Your task to perform on an android device: turn notification dots off Image 0: 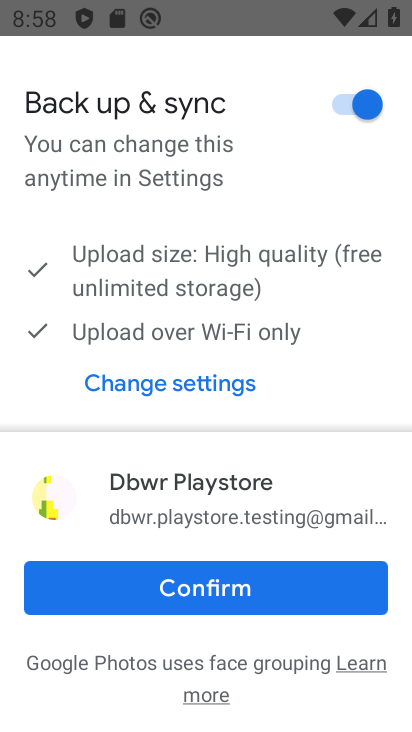
Step 0: press home button
Your task to perform on an android device: turn notification dots off Image 1: 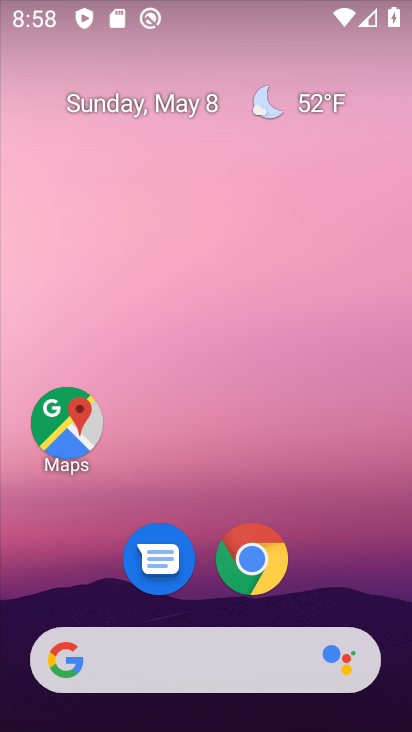
Step 1: drag from (347, 537) to (324, 28)
Your task to perform on an android device: turn notification dots off Image 2: 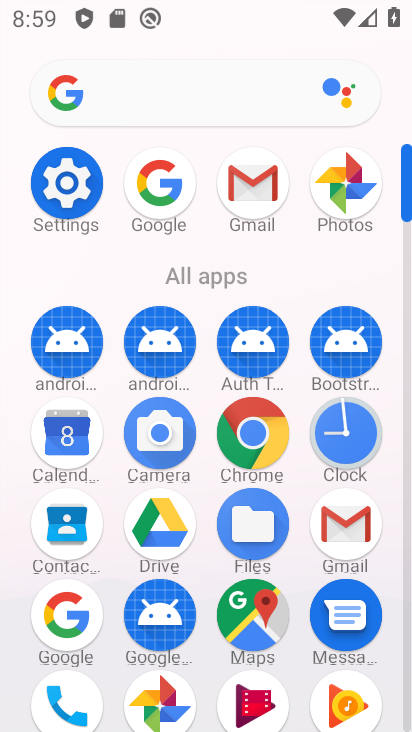
Step 2: click (65, 209)
Your task to perform on an android device: turn notification dots off Image 3: 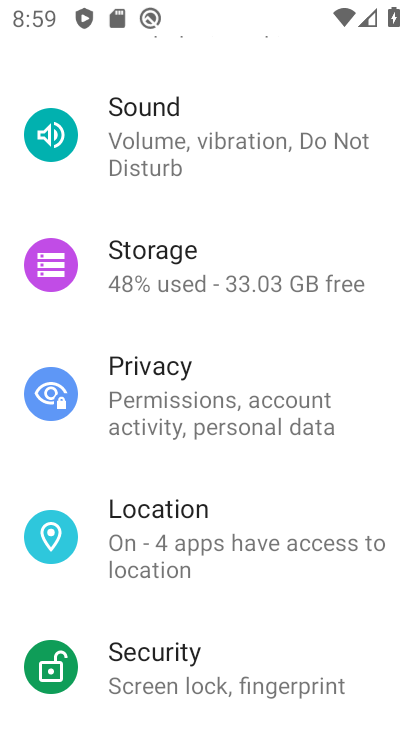
Step 3: drag from (213, 553) to (218, 31)
Your task to perform on an android device: turn notification dots off Image 4: 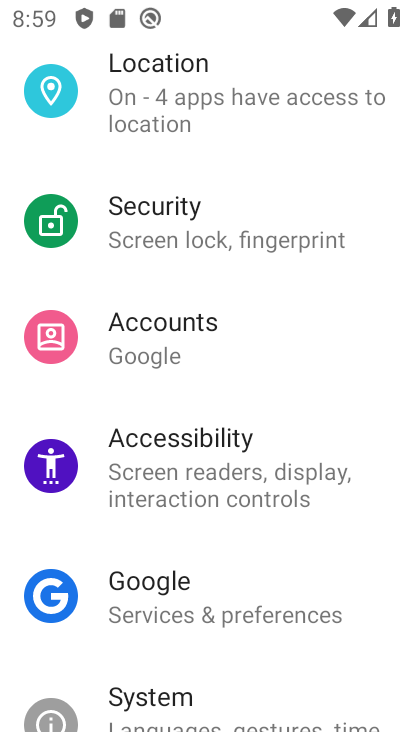
Step 4: drag from (244, 658) to (208, 72)
Your task to perform on an android device: turn notification dots off Image 5: 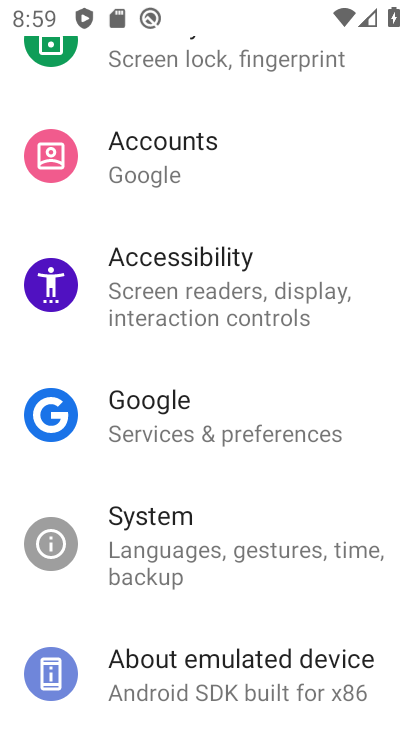
Step 5: drag from (254, 65) to (237, 647)
Your task to perform on an android device: turn notification dots off Image 6: 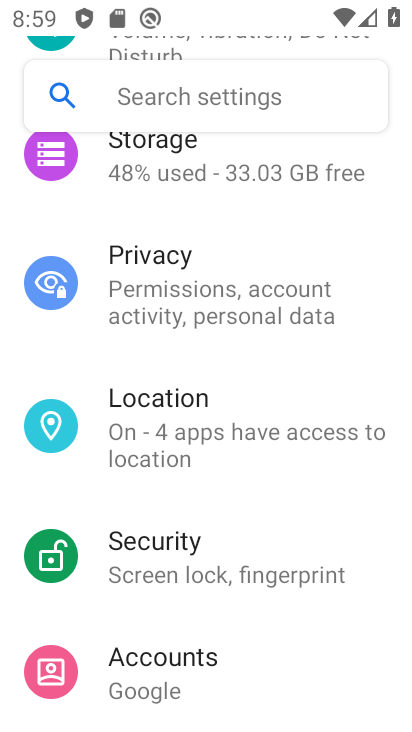
Step 6: drag from (174, 122) to (142, 624)
Your task to perform on an android device: turn notification dots off Image 7: 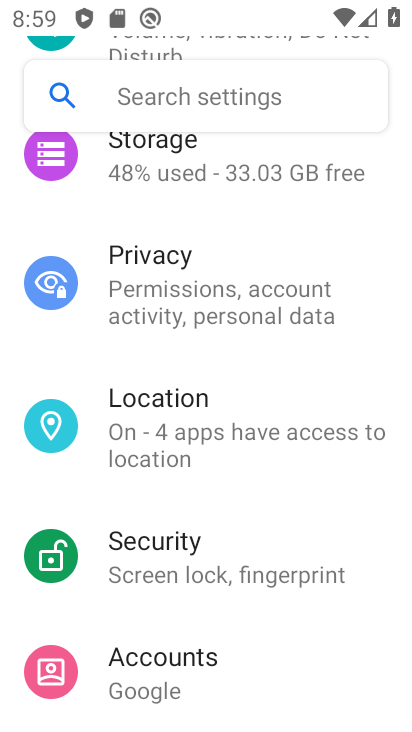
Step 7: drag from (155, 136) to (145, 516)
Your task to perform on an android device: turn notification dots off Image 8: 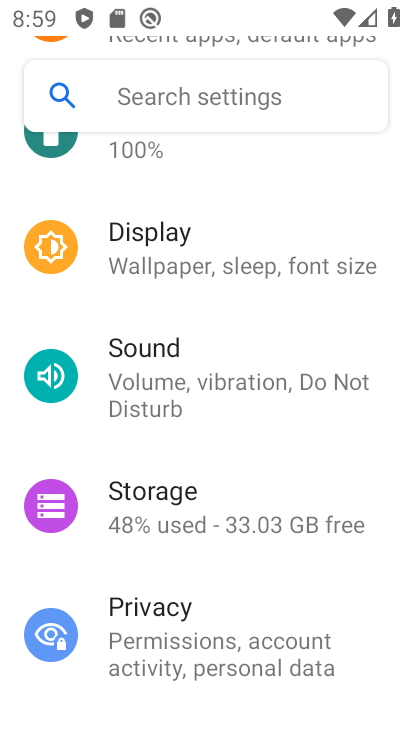
Step 8: drag from (132, 239) to (102, 588)
Your task to perform on an android device: turn notification dots off Image 9: 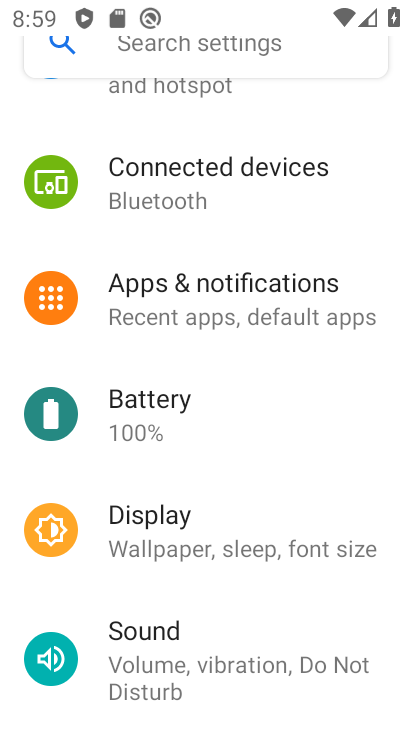
Step 9: click (149, 348)
Your task to perform on an android device: turn notification dots off Image 10: 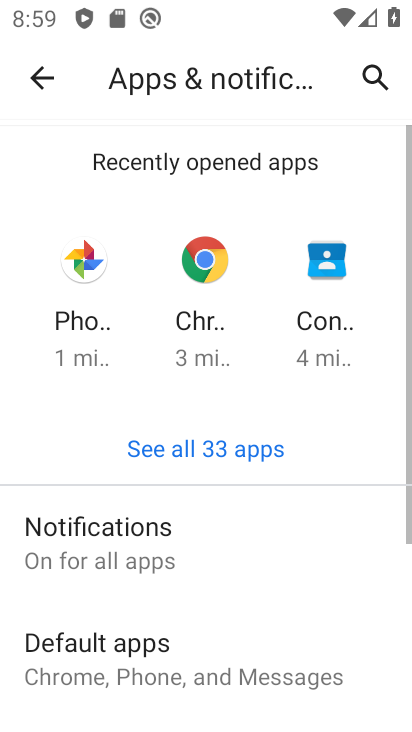
Step 10: drag from (187, 582) to (168, 432)
Your task to perform on an android device: turn notification dots off Image 11: 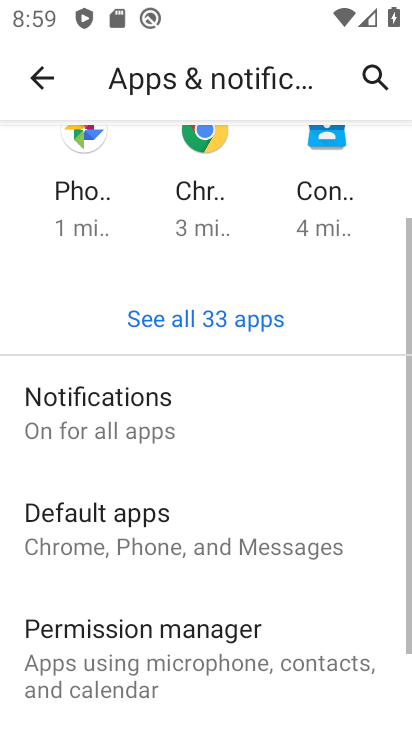
Step 11: click (169, 378)
Your task to perform on an android device: turn notification dots off Image 12: 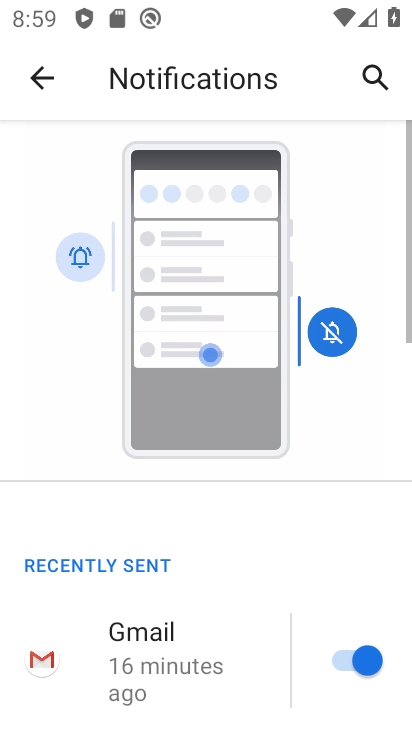
Step 12: drag from (308, 596) to (289, 102)
Your task to perform on an android device: turn notification dots off Image 13: 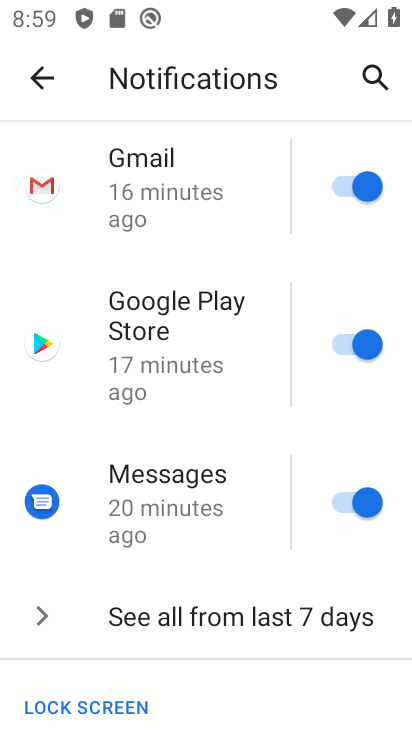
Step 13: drag from (265, 492) to (302, 122)
Your task to perform on an android device: turn notification dots off Image 14: 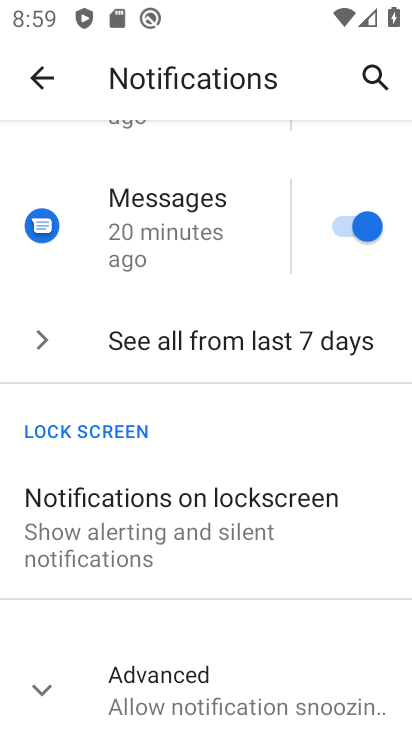
Step 14: drag from (220, 648) to (184, 197)
Your task to perform on an android device: turn notification dots off Image 15: 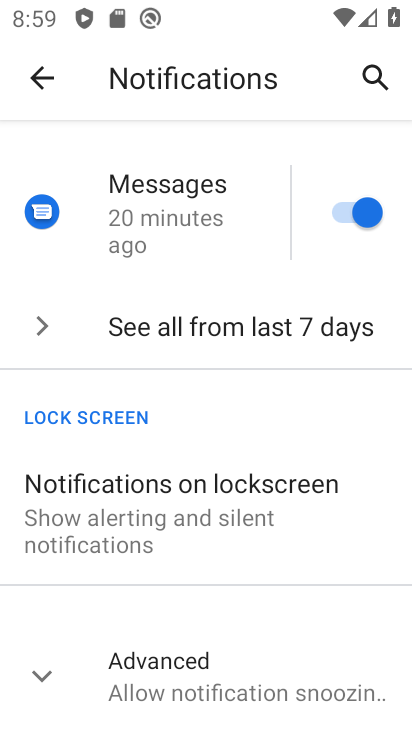
Step 15: click (206, 697)
Your task to perform on an android device: turn notification dots off Image 16: 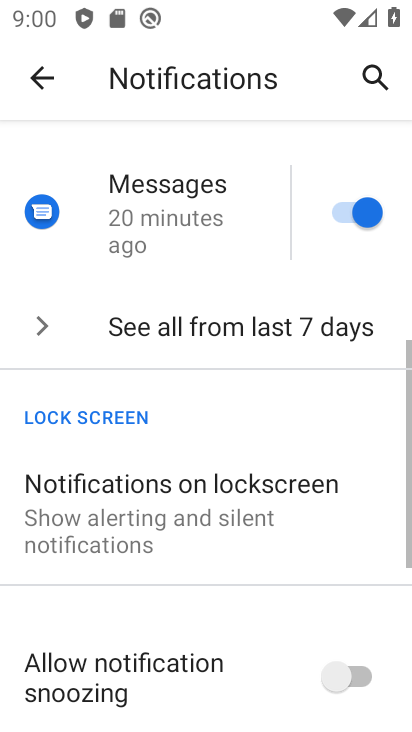
Step 16: drag from (207, 695) to (197, 444)
Your task to perform on an android device: turn notification dots off Image 17: 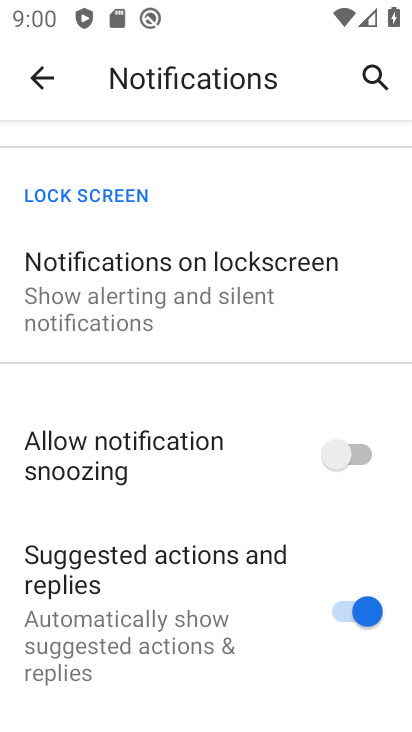
Step 17: drag from (308, 560) to (288, 336)
Your task to perform on an android device: turn notification dots off Image 18: 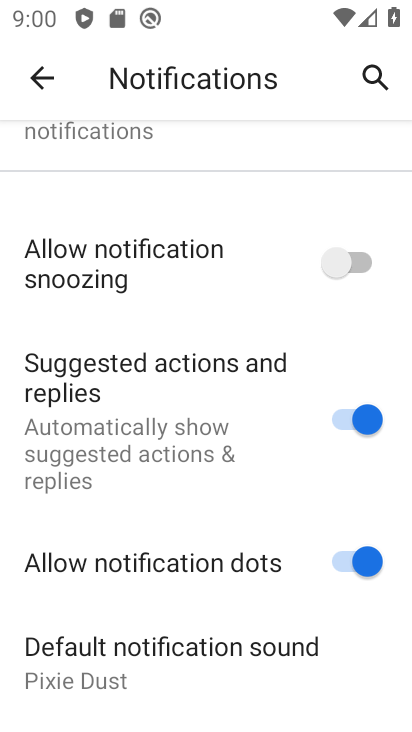
Step 18: click (350, 560)
Your task to perform on an android device: turn notification dots off Image 19: 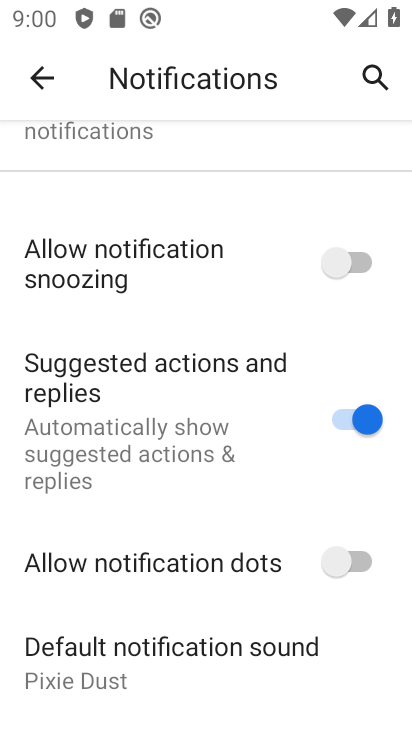
Step 19: task complete